Your task to perform on an android device: all mails in gmail Image 0: 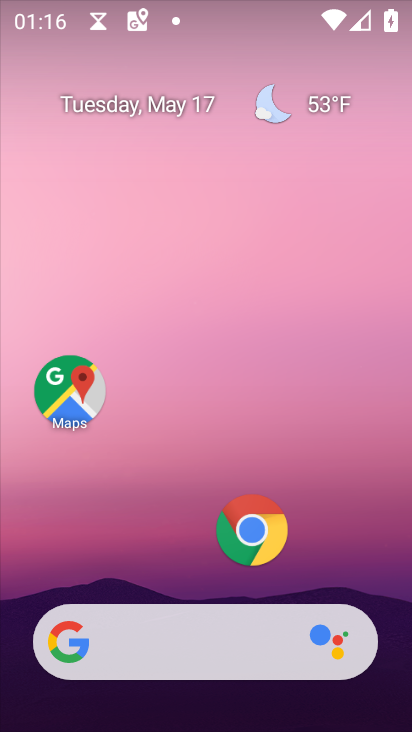
Step 0: drag from (125, 555) to (133, 171)
Your task to perform on an android device: all mails in gmail Image 1: 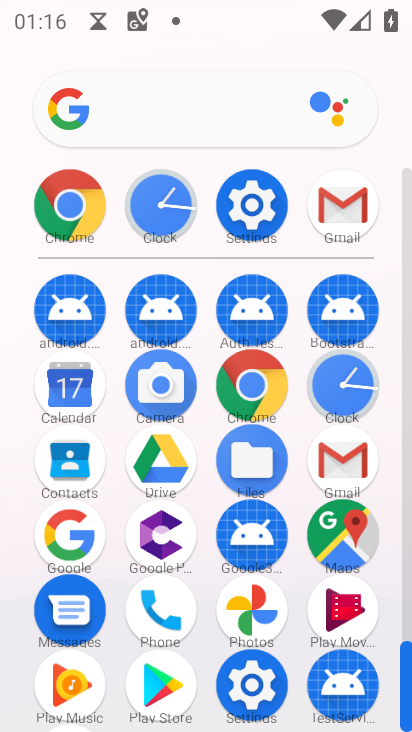
Step 1: click (320, 222)
Your task to perform on an android device: all mails in gmail Image 2: 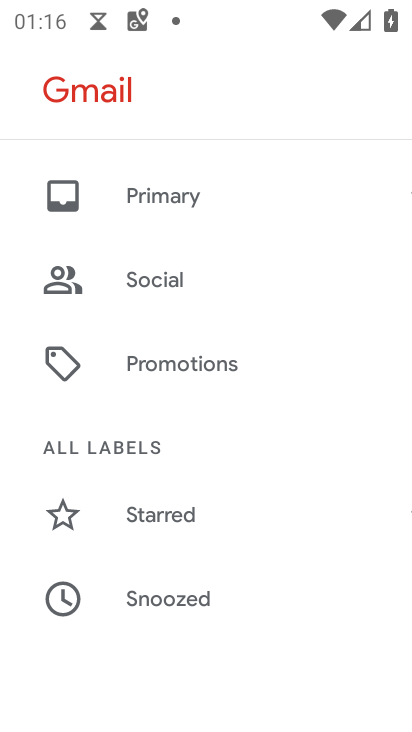
Step 2: click (320, 222)
Your task to perform on an android device: all mails in gmail Image 3: 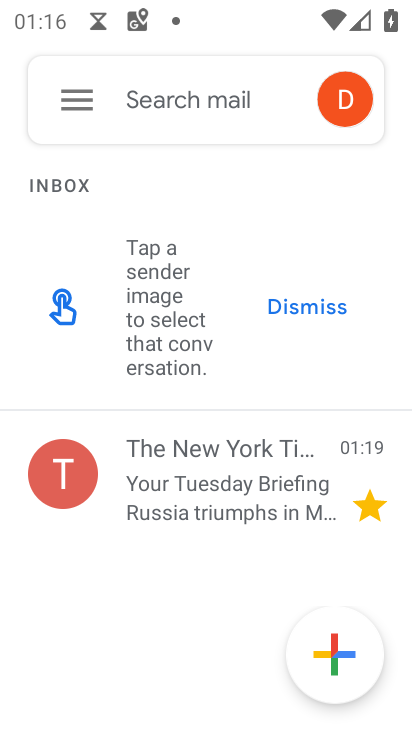
Step 3: click (87, 106)
Your task to perform on an android device: all mails in gmail Image 4: 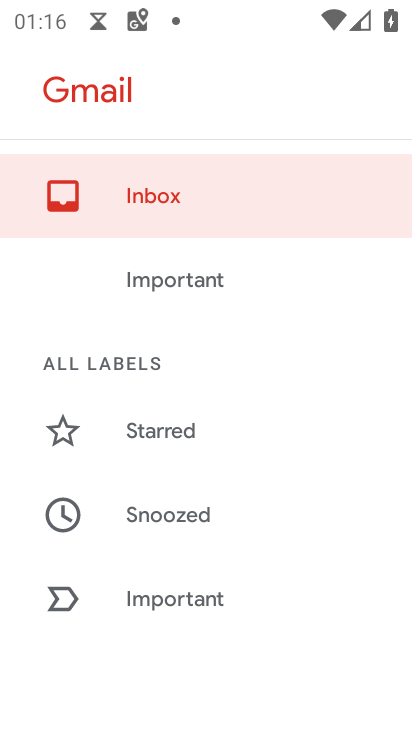
Step 4: drag from (71, 190) to (67, 3)
Your task to perform on an android device: all mails in gmail Image 5: 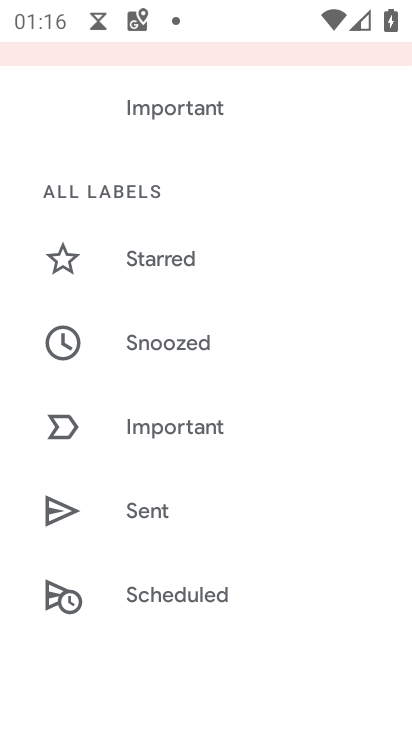
Step 5: drag from (160, 520) to (161, 312)
Your task to perform on an android device: all mails in gmail Image 6: 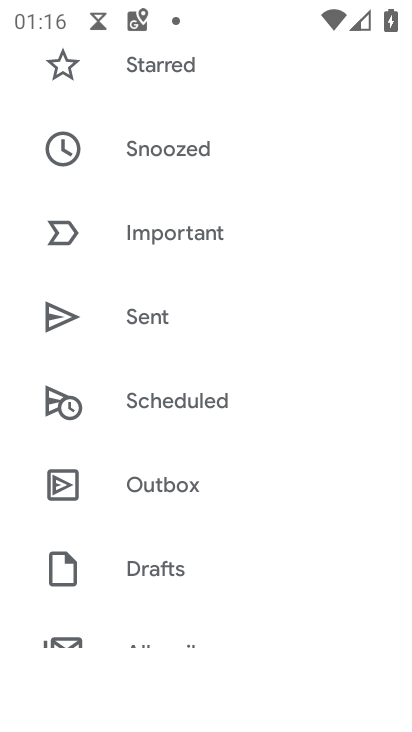
Step 6: drag from (180, 532) to (171, 15)
Your task to perform on an android device: all mails in gmail Image 7: 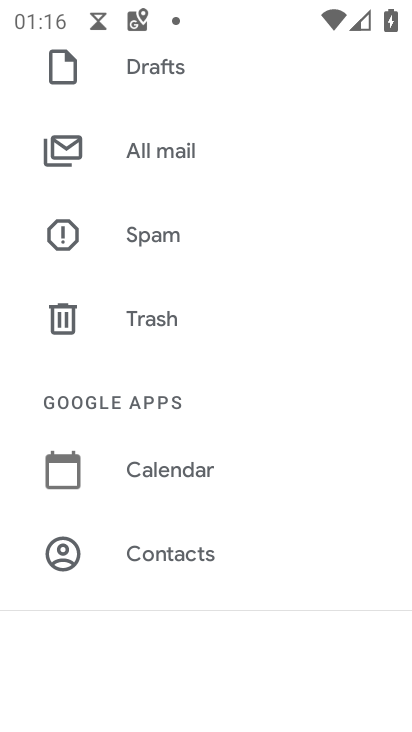
Step 7: click (151, 158)
Your task to perform on an android device: all mails in gmail Image 8: 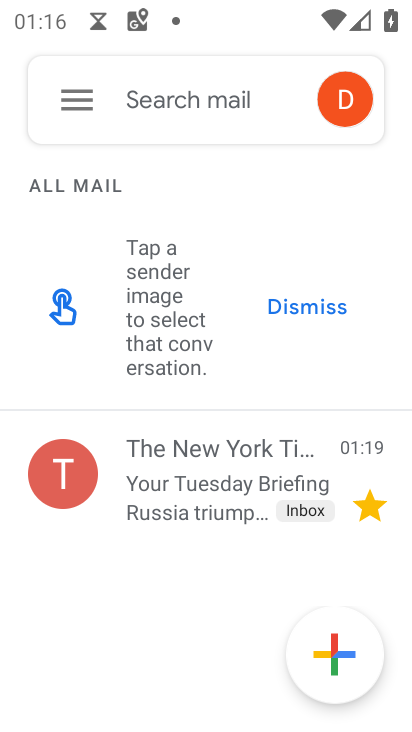
Step 8: task complete